Your task to perform on an android device: Is it going to rain tomorrow? Image 0: 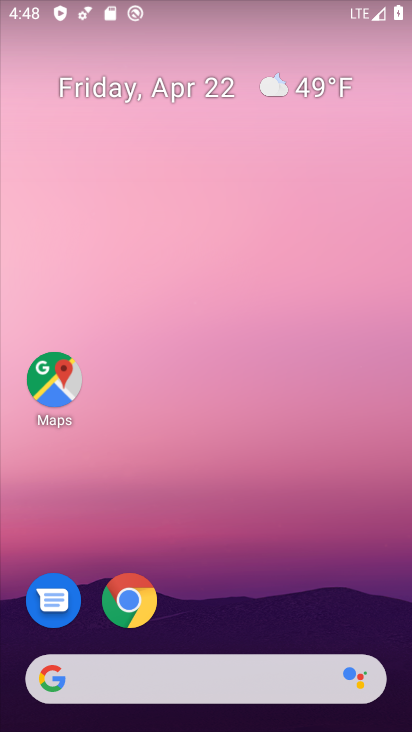
Step 0: drag from (219, 598) to (233, 98)
Your task to perform on an android device: Is it going to rain tomorrow? Image 1: 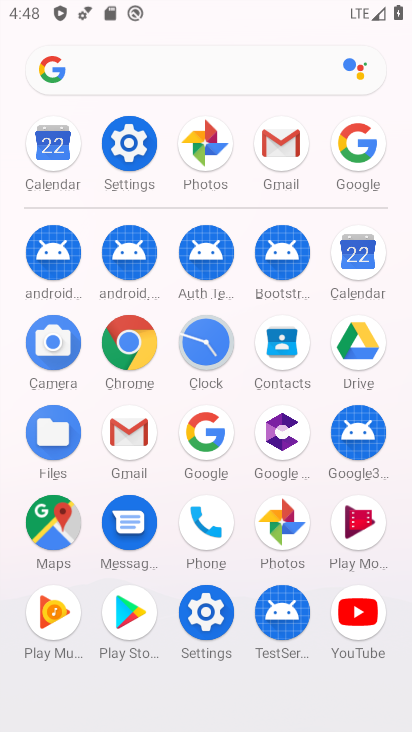
Step 1: click (357, 140)
Your task to perform on an android device: Is it going to rain tomorrow? Image 2: 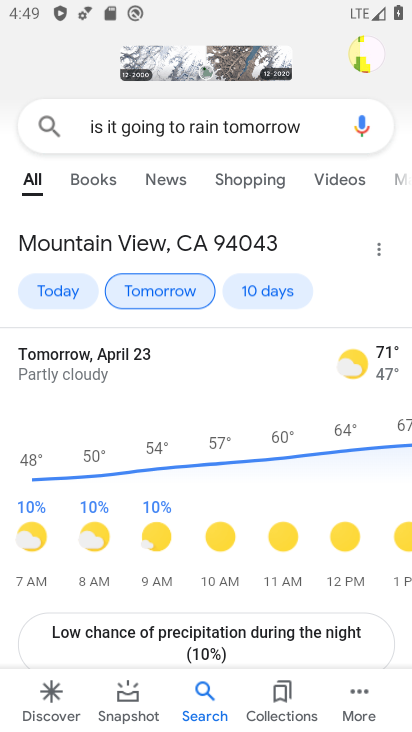
Step 2: task complete